Your task to perform on an android device: turn off airplane mode Image 0: 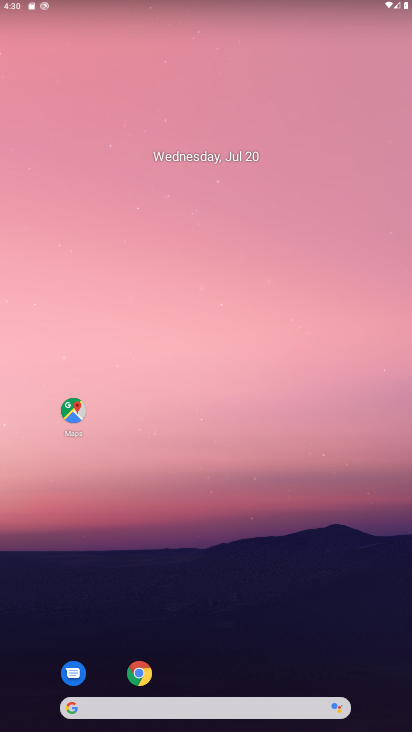
Step 0: drag from (359, 615) to (240, 23)
Your task to perform on an android device: turn off airplane mode Image 1: 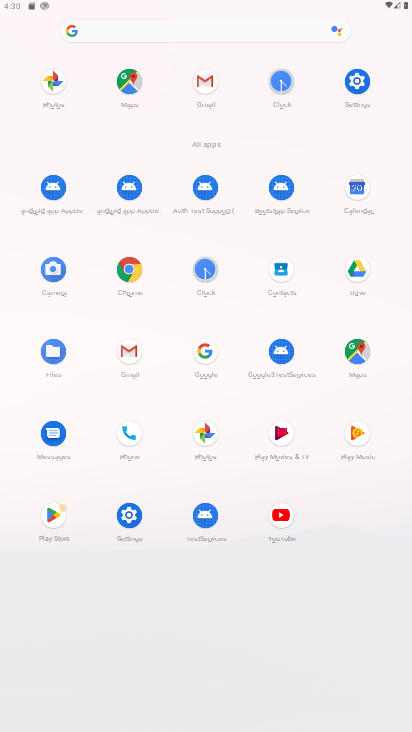
Step 1: click (358, 84)
Your task to perform on an android device: turn off airplane mode Image 2: 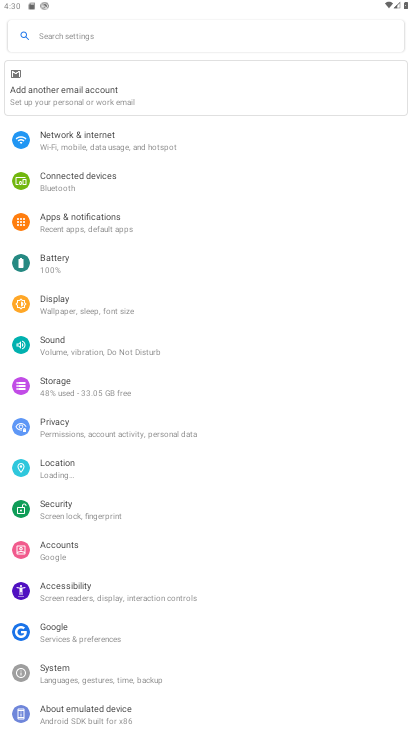
Step 2: click (127, 144)
Your task to perform on an android device: turn off airplane mode Image 3: 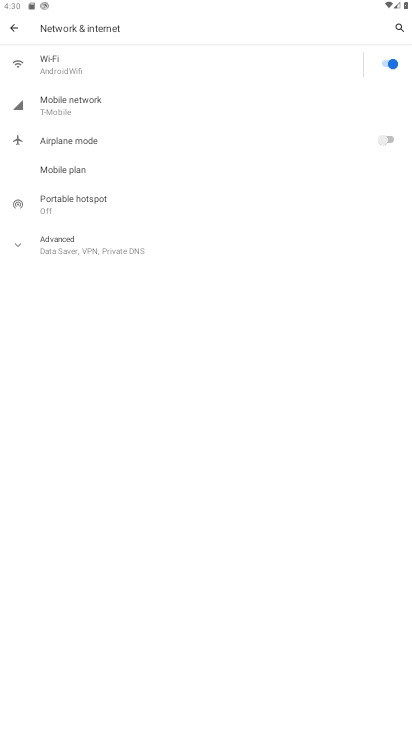
Step 3: task complete